Your task to perform on an android device: toggle notification dots Image 0: 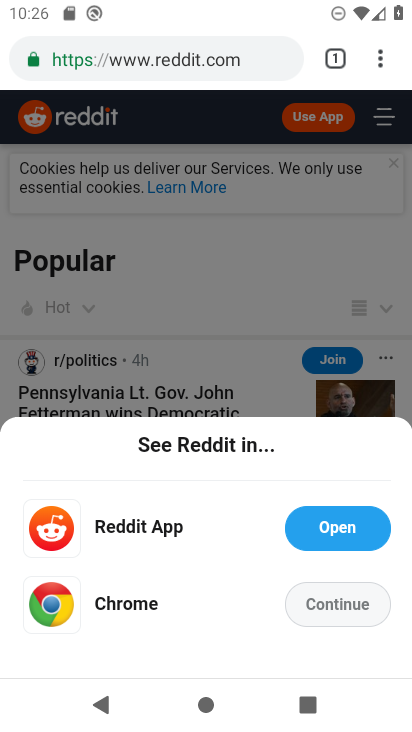
Step 0: press home button
Your task to perform on an android device: toggle notification dots Image 1: 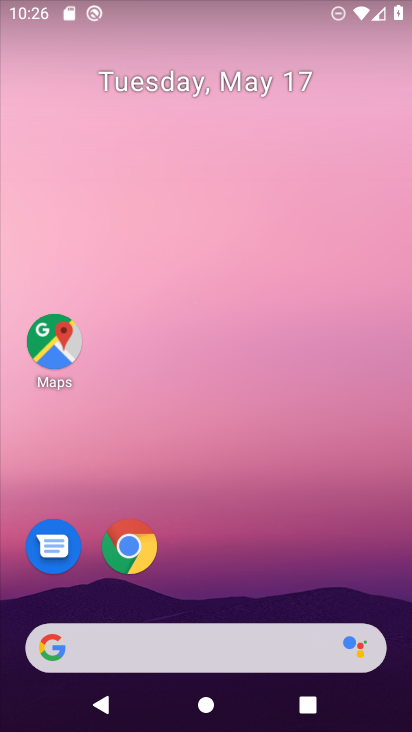
Step 1: drag from (285, 571) to (275, 10)
Your task to perform on an android device: toggle notification dots Image 2: 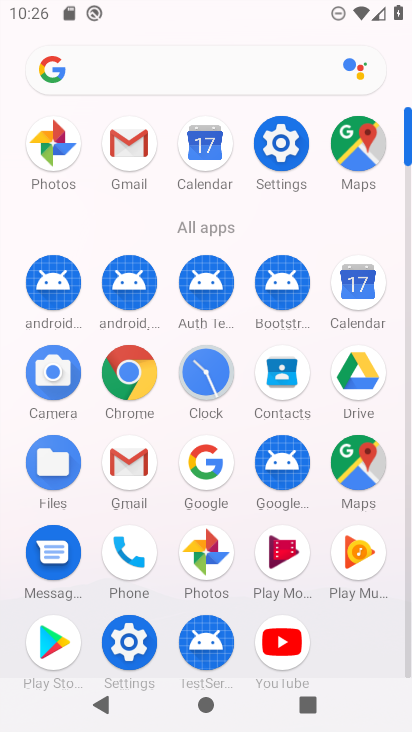
Step 2: click (275, 142)
Your task to perform on an android device: toggle notification dots Image 3: 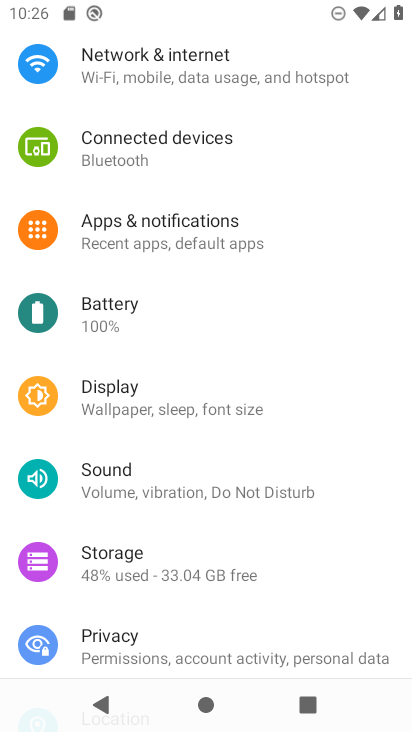
Step 3: click (155, 232)
Your task to perform on an android device: toggle notification dots Image 4: 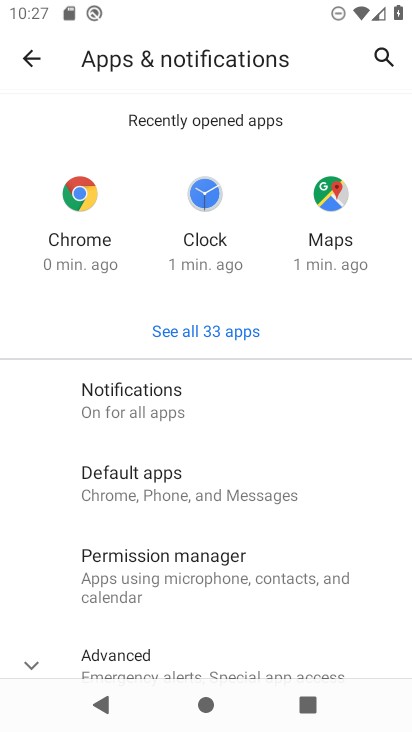
Step 4: click (126, 409)
Your task to perform on an android device: toggle notification dots Image 5: 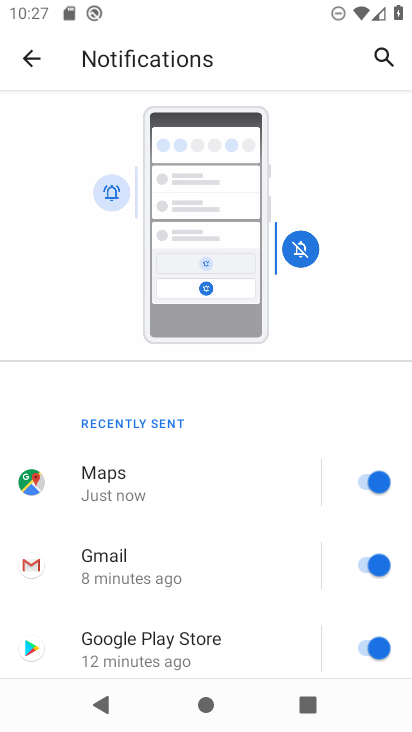
Step 5: drag from (186, 621) to (151, 147)
Your task to perform on an android device: toggle notification dots Image 6: 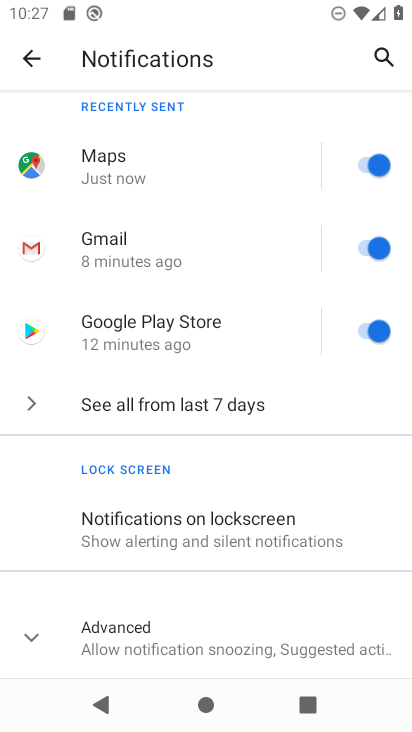
Step 6: click (34, 642)
Your task to perform on an android device: toggle notification dots Image 7: 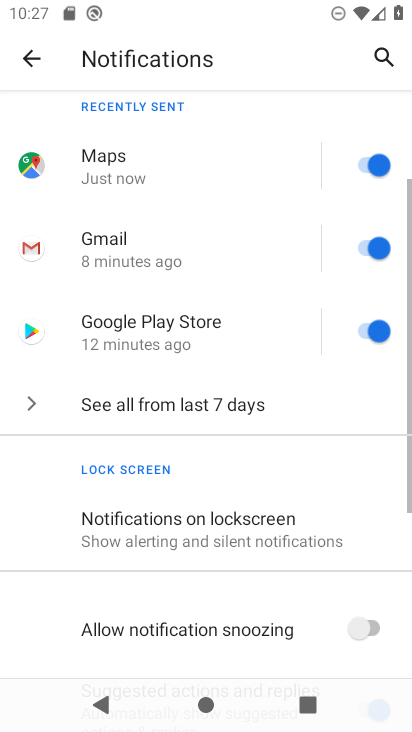
Step 7: drag from (184, 625) to (180, 63)
Your task to perform on an android device: toggle notification dots Image 8: 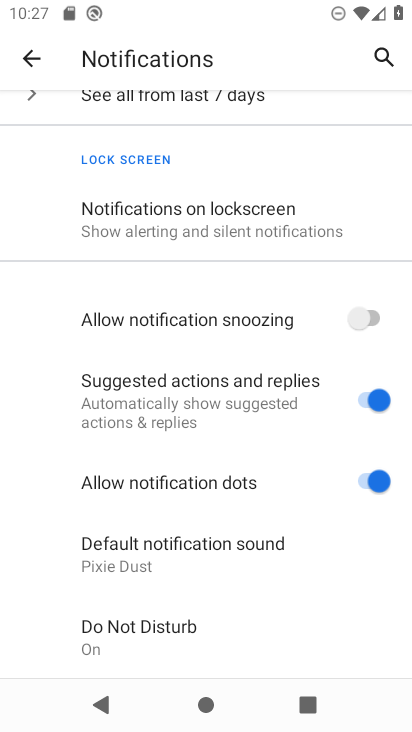
Step 8: click (388, 482)
Your task to perform on an android device: toggle notification dots Image 9: 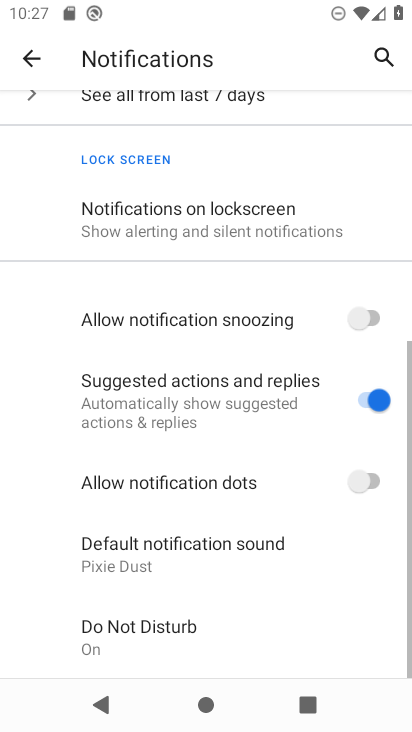
Step 9: task complete